Your task to perform on an android device: open a new tab in the chrome app Image 0: 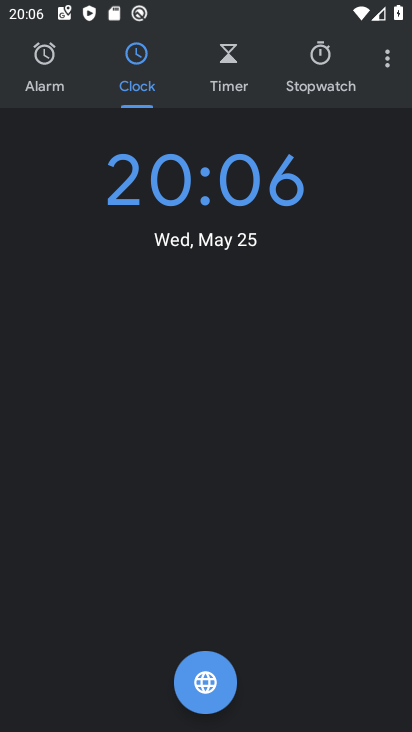
Step 0: press home button
Your task to perform on an android device: open a new tab in the chrome app Image 1: 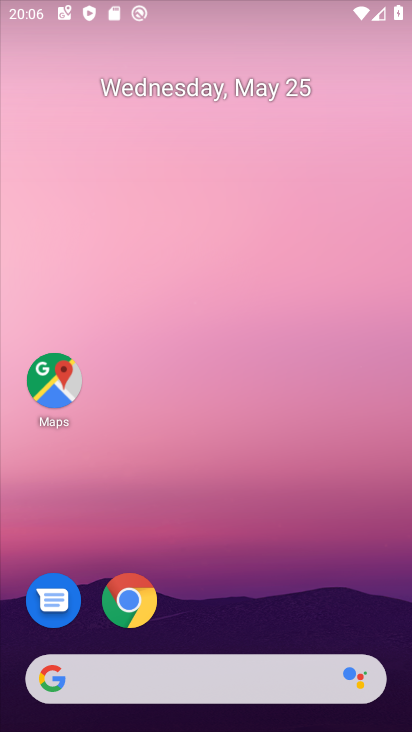
Step 1: drag from (304, 585) to (292, 196)
Your task to perform on an android device: open a new tab in the chrome app Image 2: 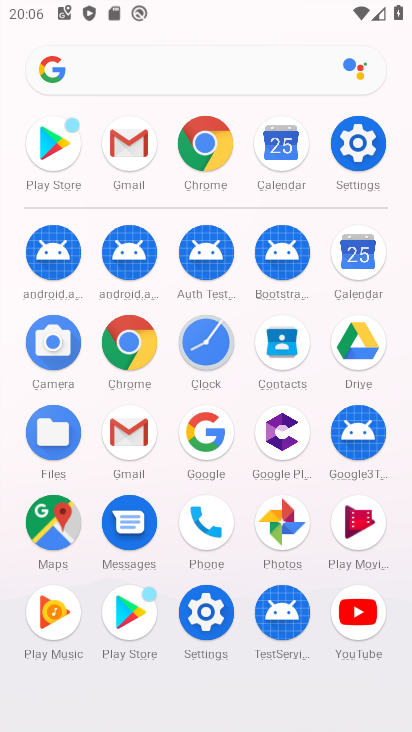
Step 2: click (140, 345)
Your task to perform on an android device: open a new tab in the chrome app Image 3: 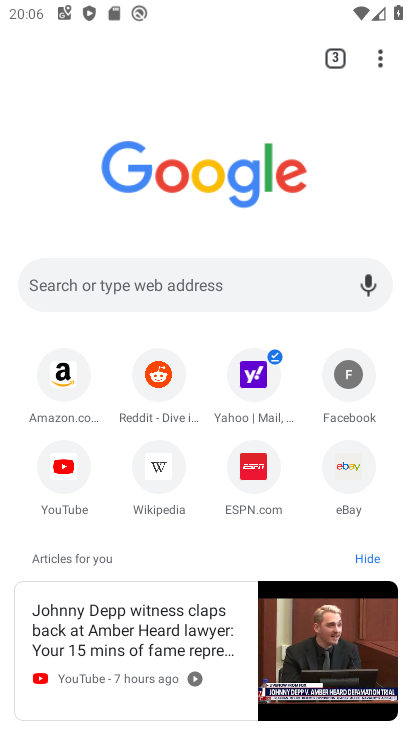
Step 3: click (341, 68)
Your task to perform on an android device: open a new tab in the chrome app Image 4: 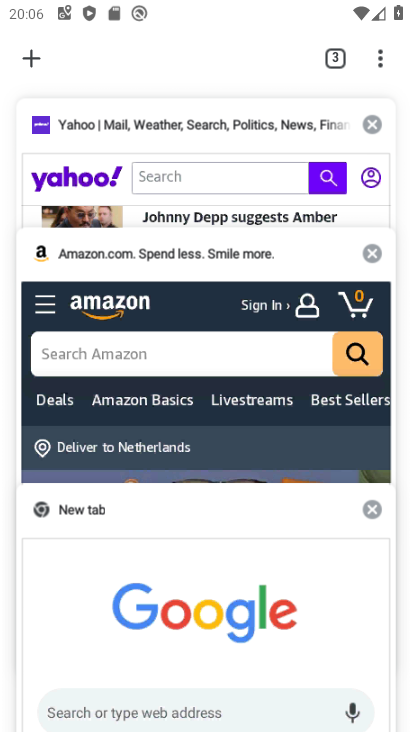
Step 4: click (34, 60)
Your task to perform on an android device: open a new tab in the chrome app Image 5: 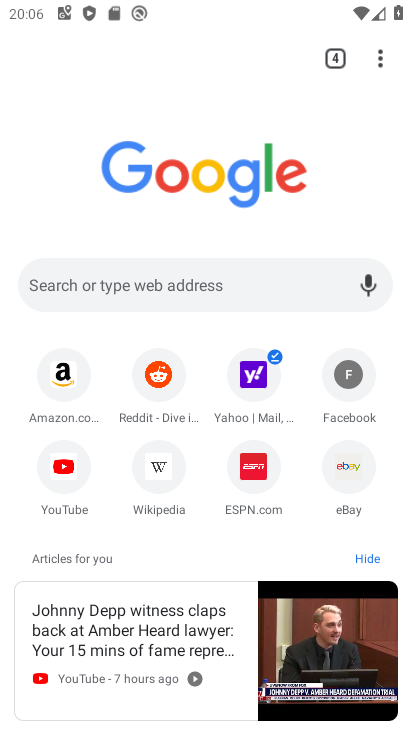
Step 5: task complete